Your task to perform on an android device: Open battery settings Image 0: 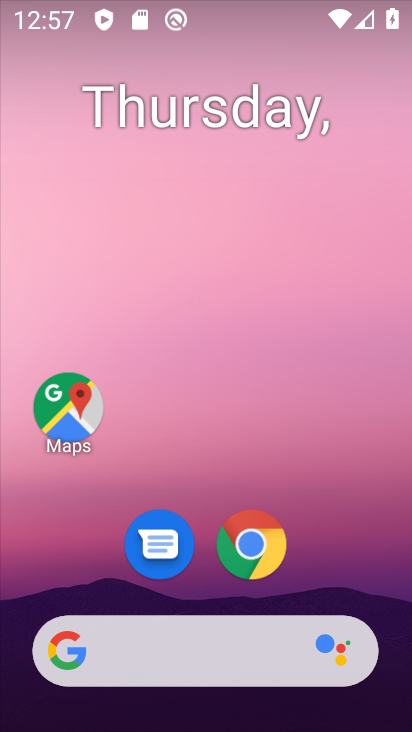
Step 0: drag from (217, 725) to (231, 149)
Your task to perform on an android device: Open battery settings Image 1: 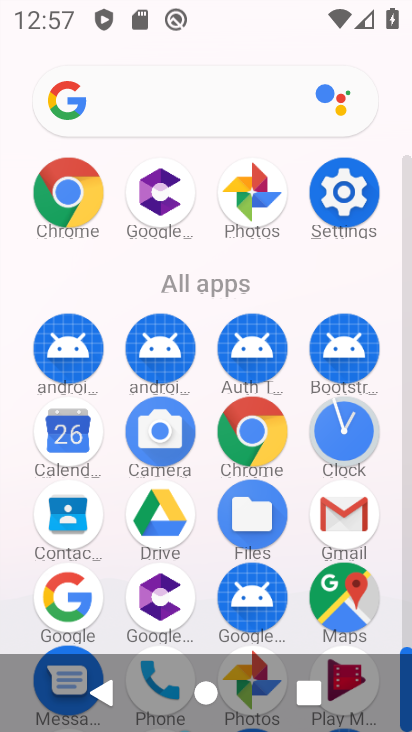
Step 1: click (352, 187)
Your task to perform on an android device: Open battery settings Image 2: 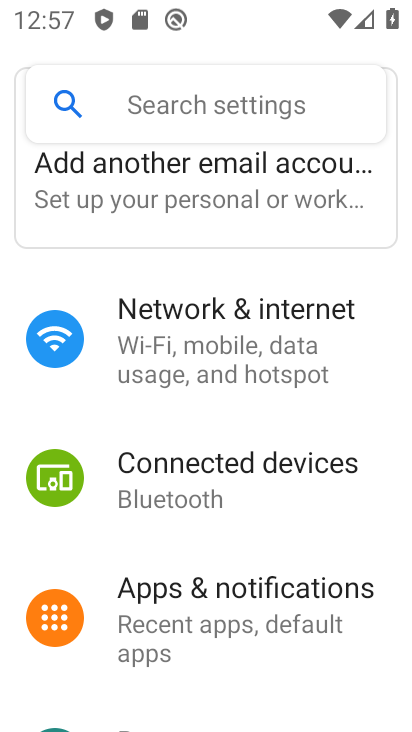
Step 2: drag from (175, 692) to (176, 383)
Your task to perform on an android device: Open battery settings Image 3: 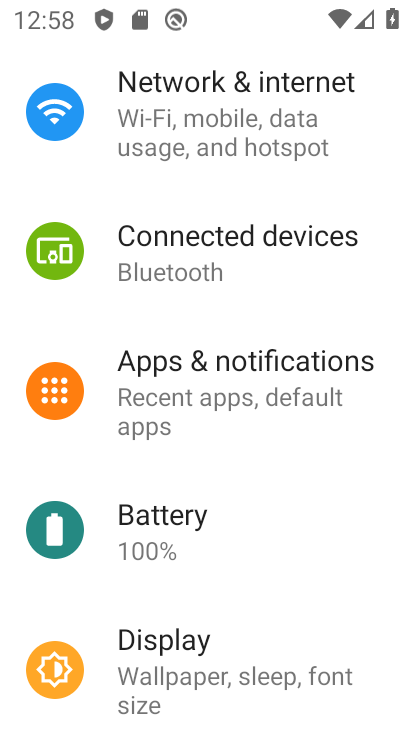
Step 3: click (166, 536)
Your task to perform on an android device: Open battery settings Image 4: 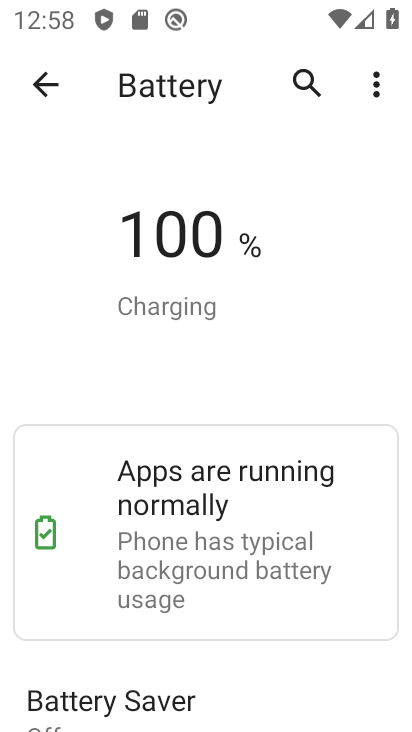
Step 4: task complete